Your task to perform on an android device: turn off sleep mode Image 0: 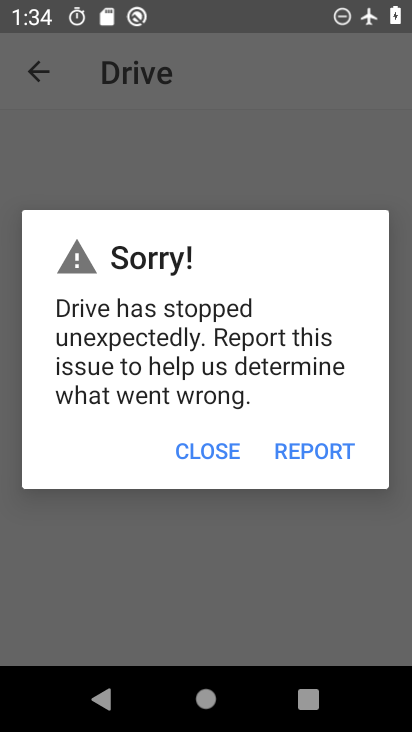
Step 0: press home button
Your task to perform on an android device: turn off sleep mode Image 1: 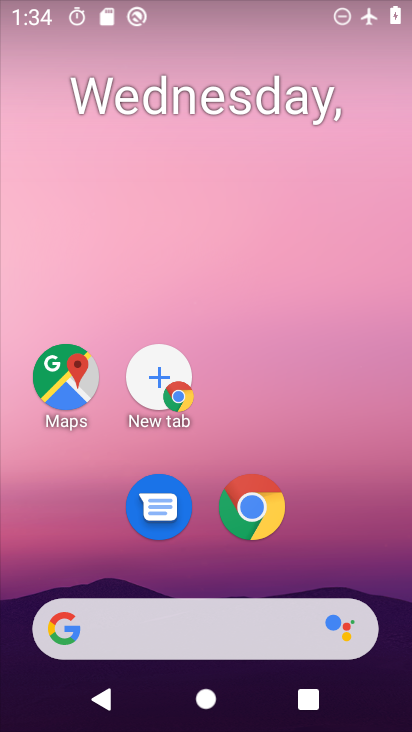
Step 1: drag from (332, 516) to (305, 55)
Your task to perform on an android device: turn off sleep mode Image 2: 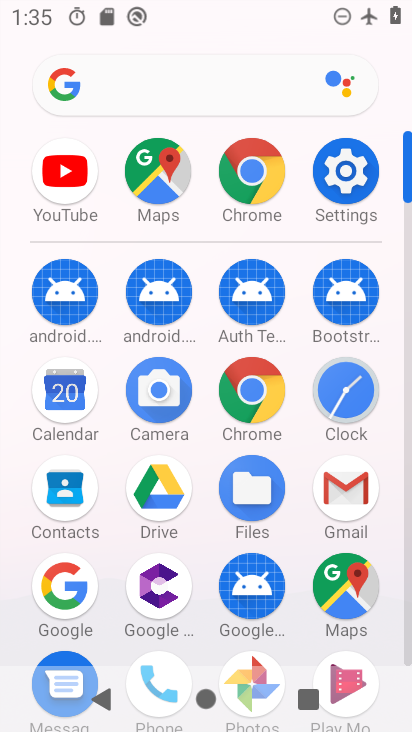
Step 2: click (326, 169)
Your task to perform on an android device: turn off sleep mode Image 3: 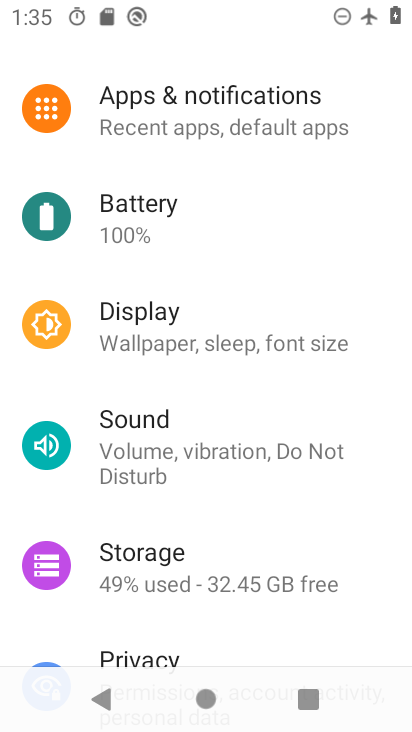
Step 3: click (210, 336)
Your task to perform on an android device: turn off sleep mode Image 4: 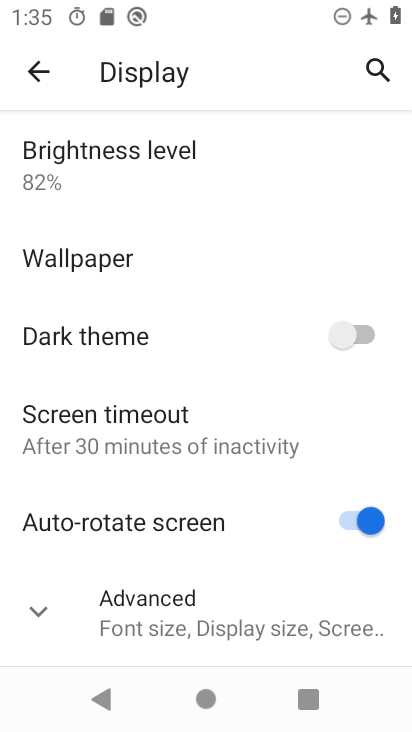
Step 4: click (118, 436)
Your task to perform on an android device: turn off sleep mode Image 5: 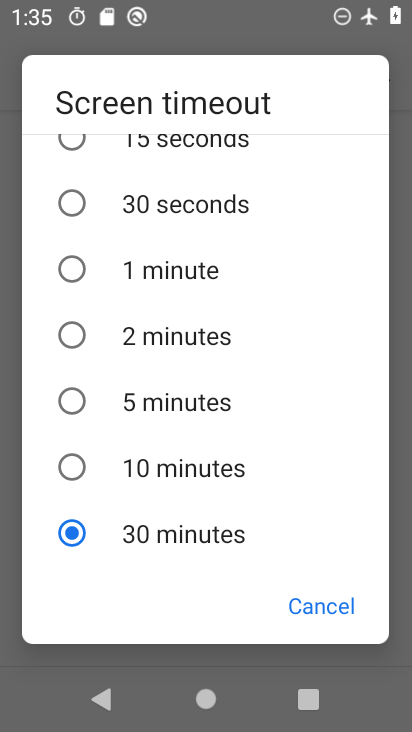
Step 5: task complete